Your task to perform on an android device: Go to display settings Image 0: 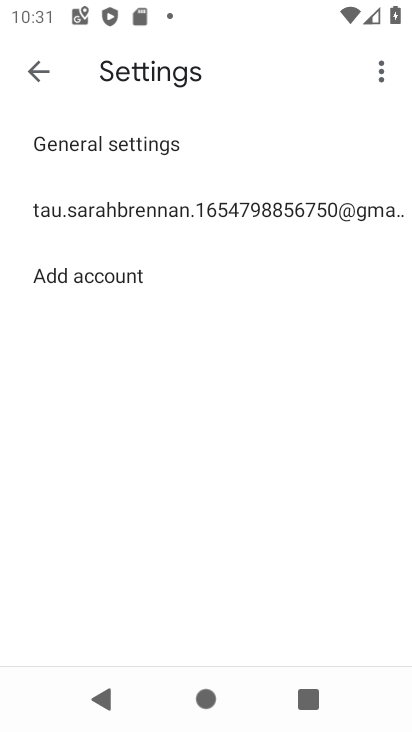
Step 0: press back button
Your task to perform on an android device: Go to display settings Image 1: 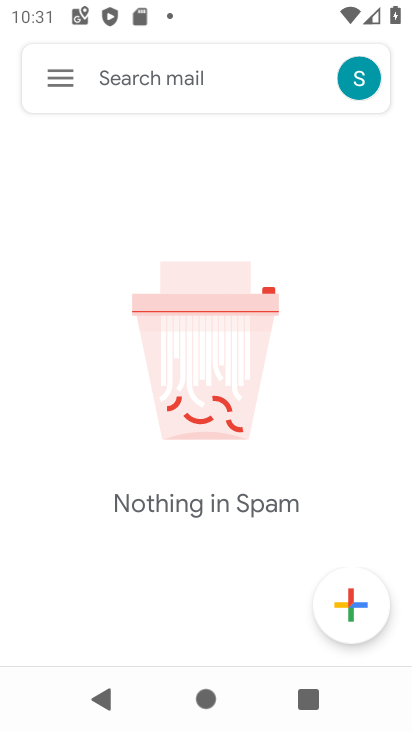
Step 1: press back button
Your task to perform on an android device: Go to display settings Image 2: 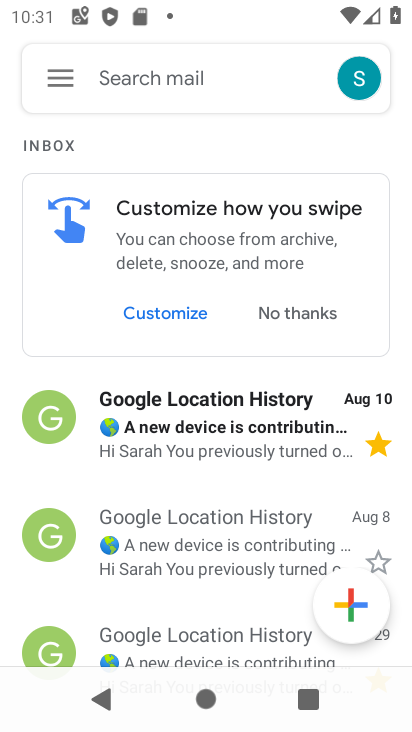
Step 2: press back button
Your task to perform on an android device: Go to display settings Image 3: 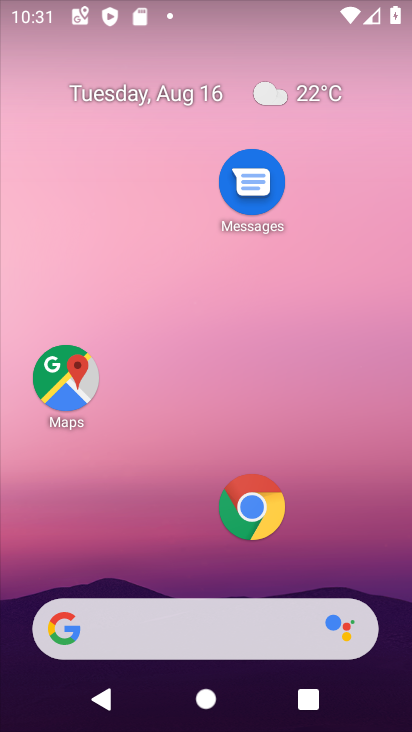
Step 3: drag from (129, 531) to (311, 10)
Your task to perform on an android device: Go to display settings Image 4: 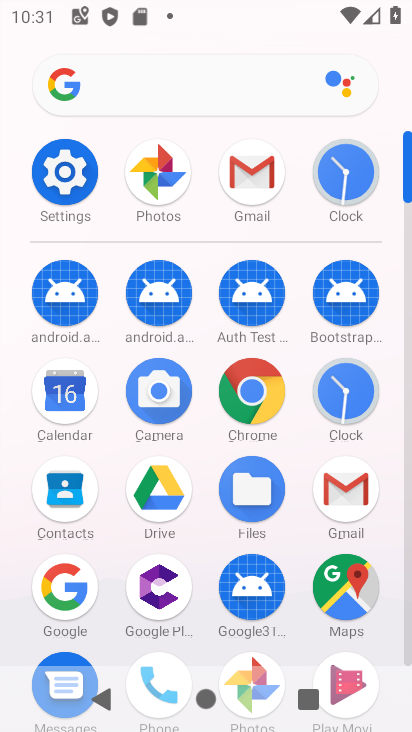
Step 4: click (78, 167)
Your task to perform on an android device: Go to display settings Image 5: 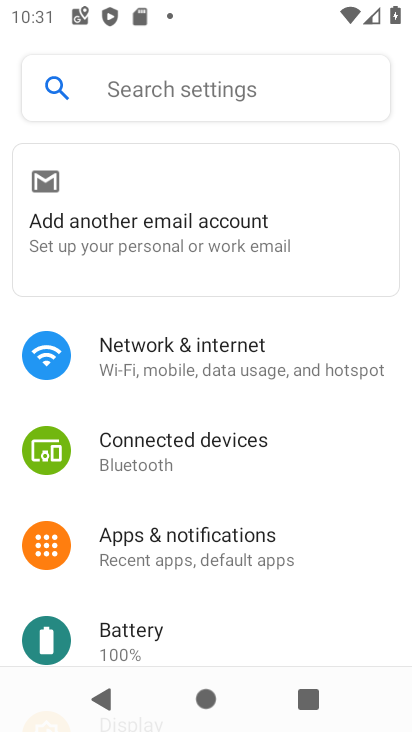
Step 5: drag from (184, 609) to (321, 50)
Your task to perform on an android device: Go to display settings Image 6: 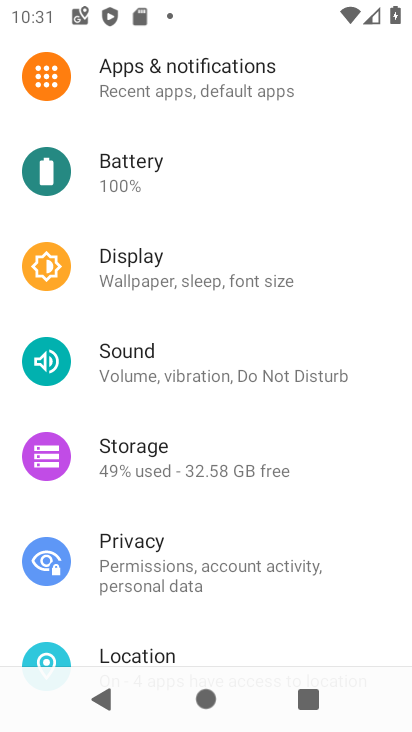
Step 6: click (134, 272)
Your task to perform on an android device: Go to display settings Image 7: 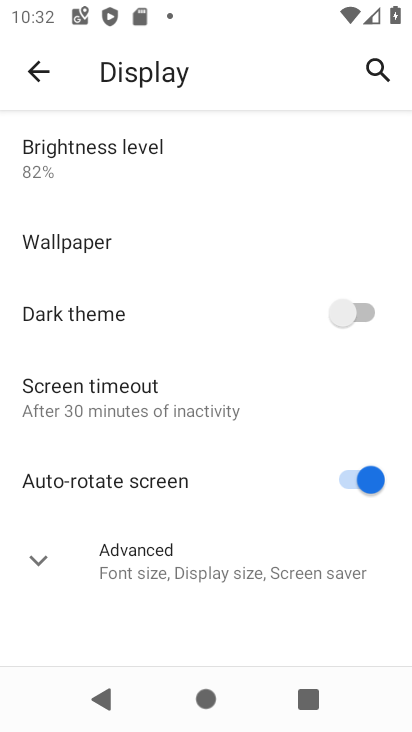
Step 7: task complete